Your task to perform on an android device: turn off location history Image 0: 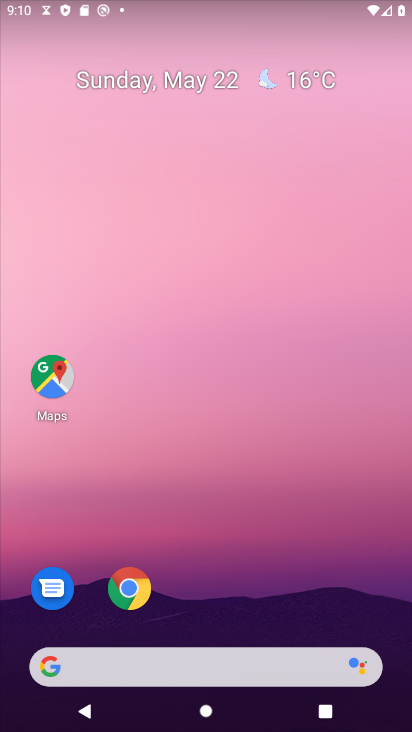
Step 0: drag from (198, 622) to (215, 228)
Your task to perform on an android device: turn off location history Image 1: 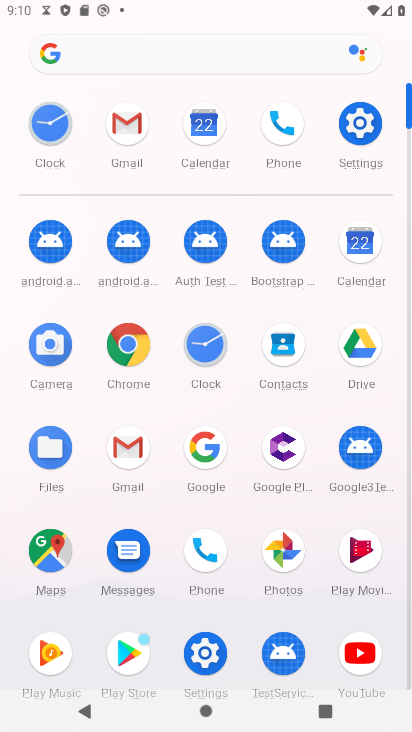
Step 1: click (342, 119)
Your task to perform on an android device: turn off location history Image 2: 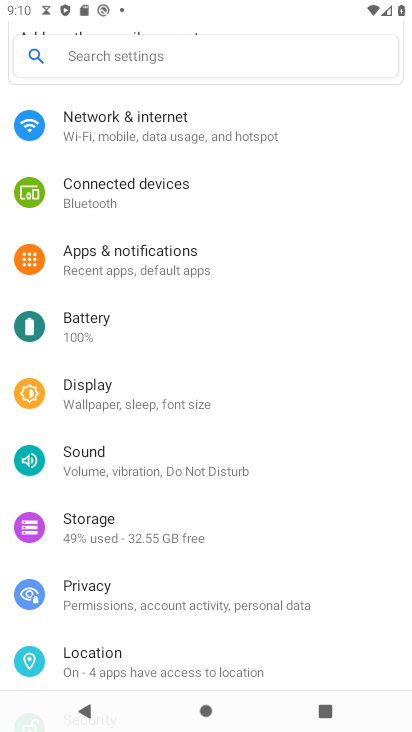
Step 2: click (122, 666)
Your task to perform on an android device: turn off location history Image 3: 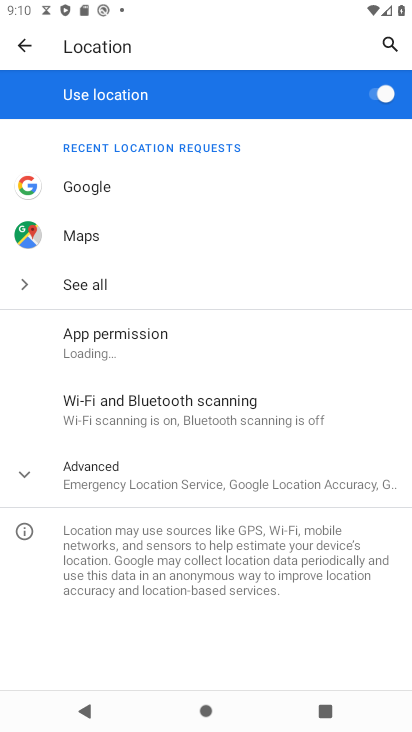
Step 3: click (194, 481)
Your task to perform on an android device: turn off location history Image 4: 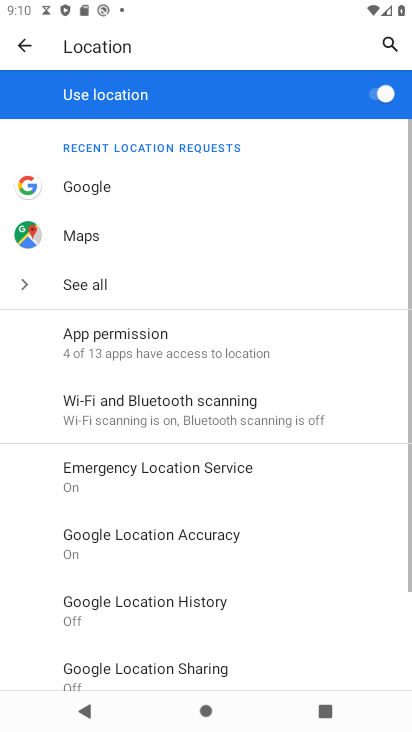
Step 4: click (247, 457)
Your task to perform on an android device: turn off location history Image 5: 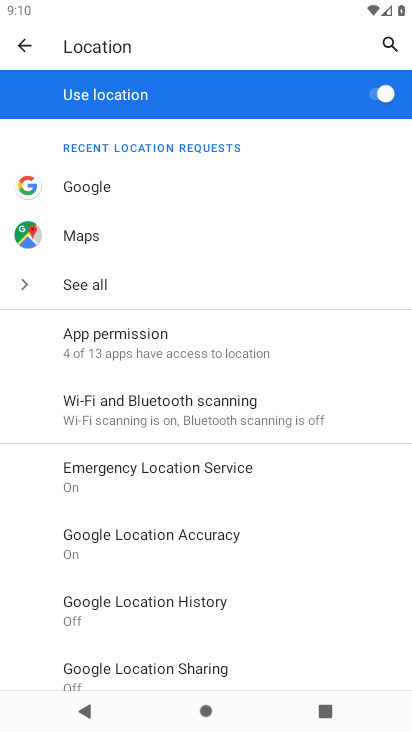
Step 5: click (228, 610)
Your task to perform on an android device: turn off location history Image 6: 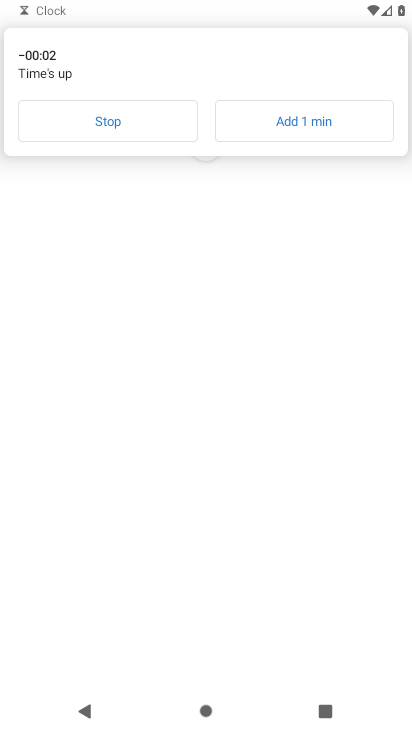
Step 6: click (103, 122)
Your task to perform on an android device: turn off location history Image 7: 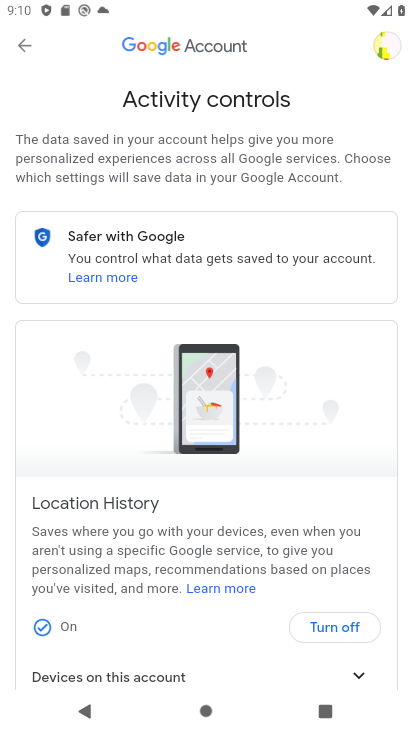
Step 7: click (332, 619)
Your task to perform on an android device: turn off location history Image 8: 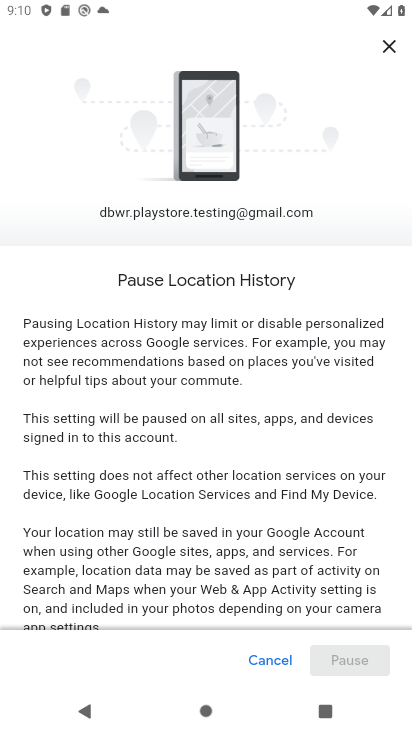
Step 8: drag from (278, 549) to (278, 234)
Your task to perform on an android device: turn off location history Image 9: 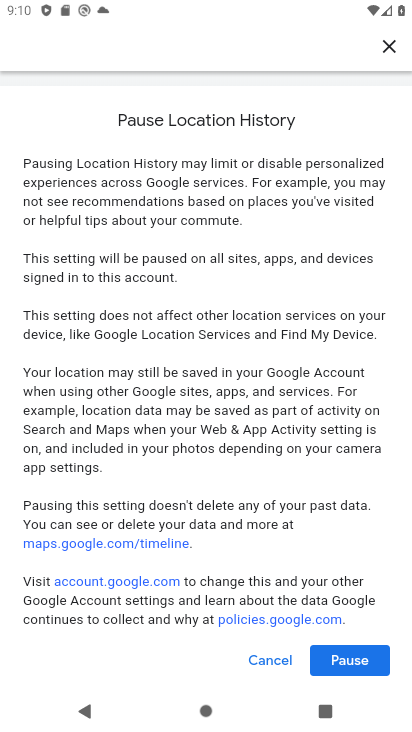
Step 9: drag from (278, 527) to (285, 231)
Your task to perform on an android device: turn off location history Image 10: 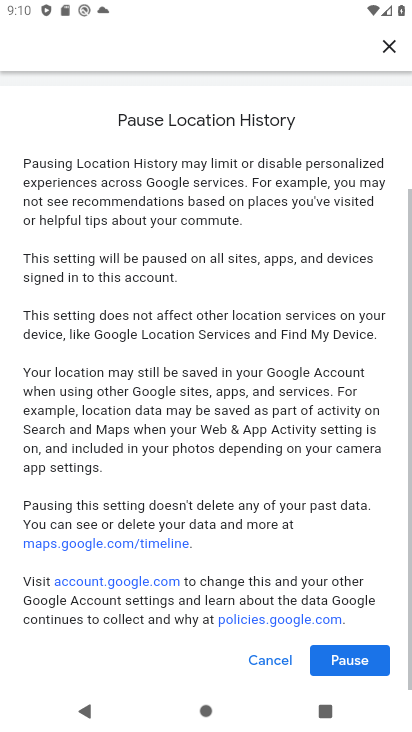
Step 10: drag from (289, 296) to (297, 166)
Your task to perform on an android device: turn off location history Image 11: 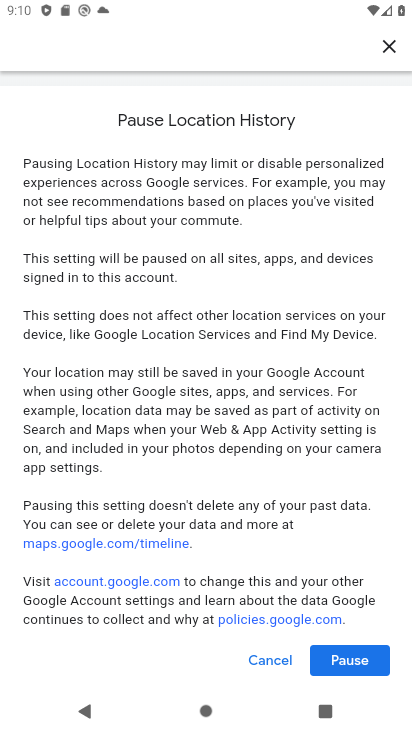
Step 11: click (331, 652)
Your task to perform on an android device: turn off location history Image 12: 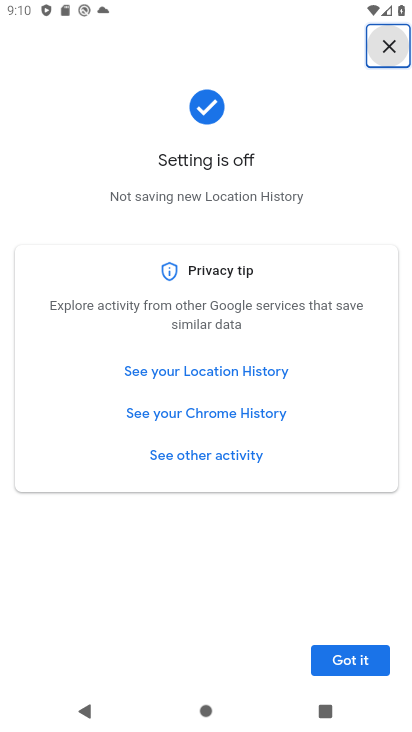
Step 12: task complete